Your task to perform on an android device: find which apps use the phone's location Image 0: 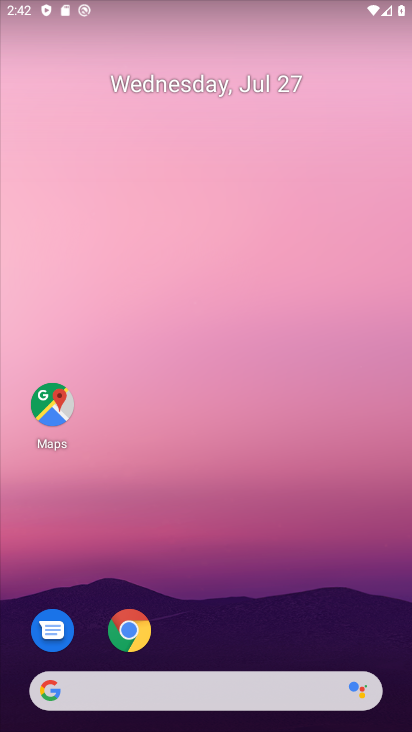
Step 0: drag from (353, 336) to (353, 40)
Your task to perform on an android device: find which apps use the phone's location Image 1: 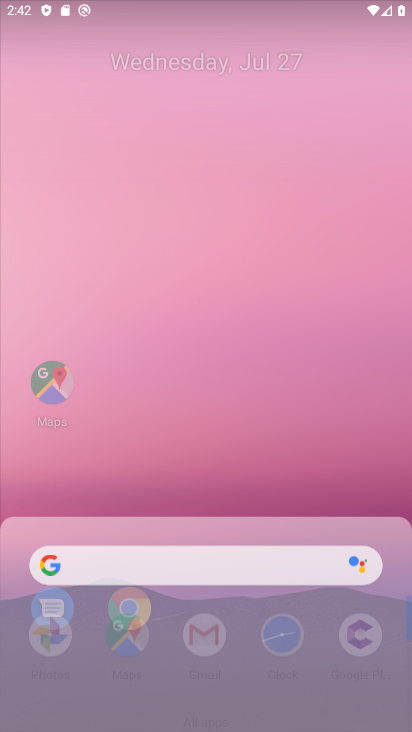
Step 1: drag from (310, 242) to (293, 111)
Your task to perform on an android device: find which apps use the phone's location Image 2: 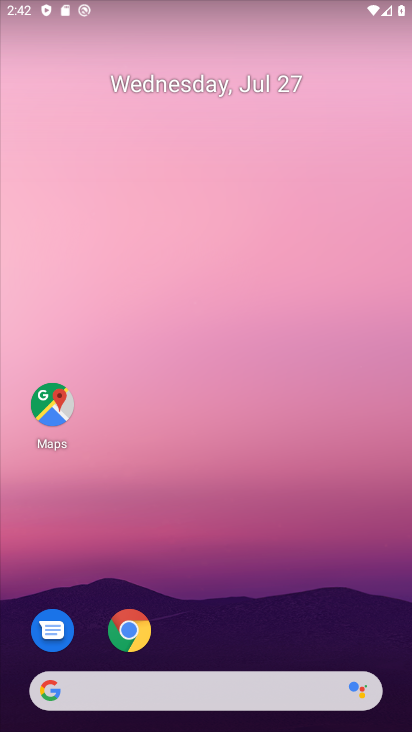
Step 2: drag from (159, 562) to (124, 153)
Your task to perform on an android device: find which apps use the phone's location Image 3: 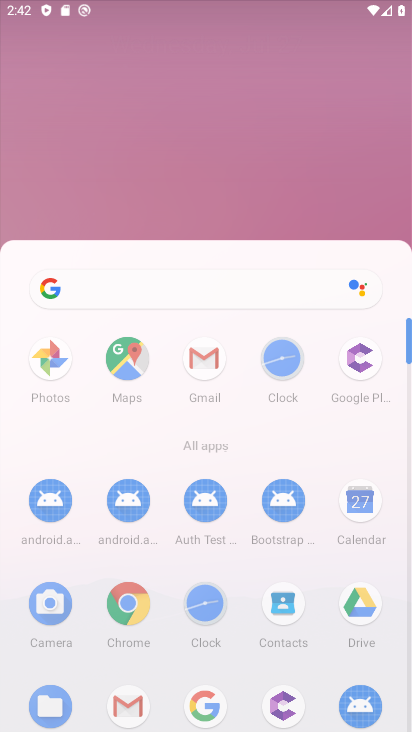
Step 3: drag from (193, 492) to (173, 139)
Your task to perform on an android device: find which apps use the phone's location Image 4: 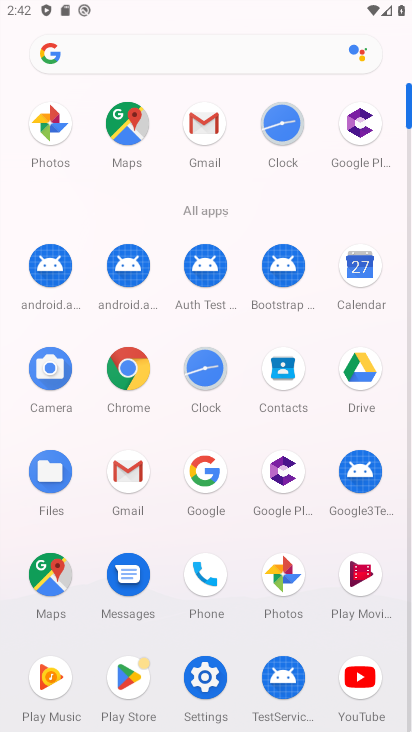
Step 4: drag from (153, 307) to (129, 137)
Your task to perform on an android device: find which apps use the phone's location Image 5: 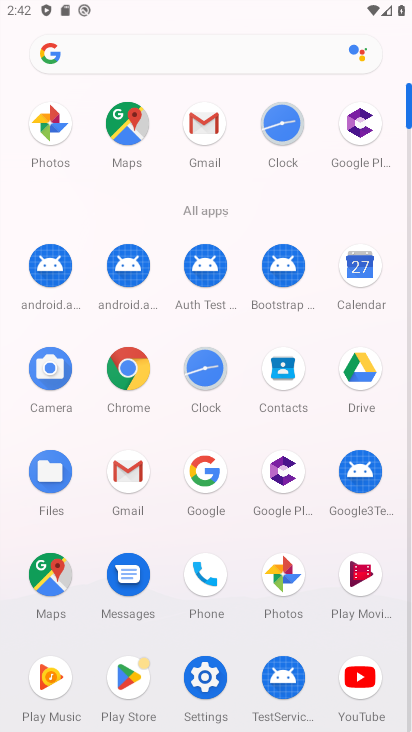
Step 5: click (207, 670)
Your task to perform on an android device: find which apps use the phone's location Image 6: 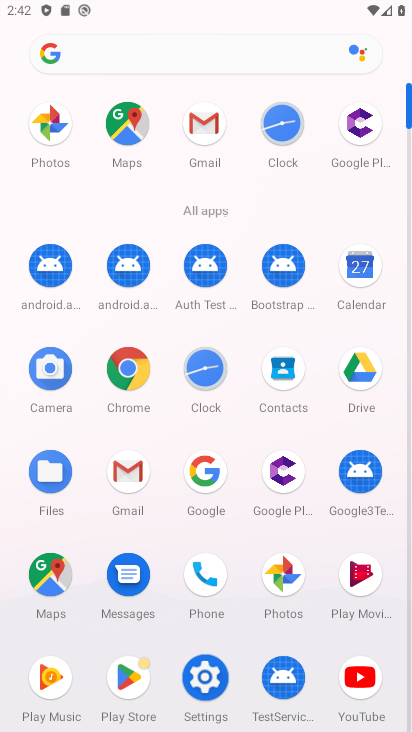
Step 6: click (208, 669)
Your task to perform on an android device: find which apps use the phone's location Image 7: 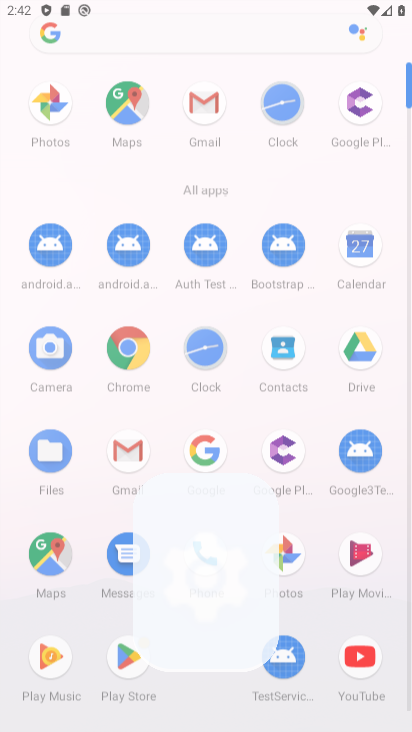
Step 7: click (214, 667)
Your task to perform on an android device: find which apps use the phone's location Image 8: 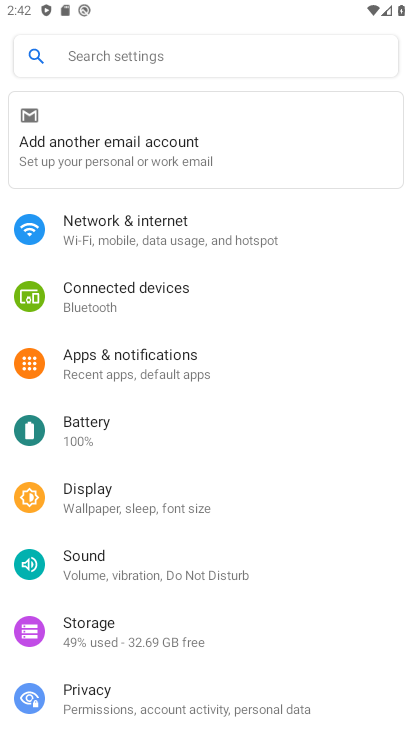
Step 8: drag from (134, 671) to (116, 404)
Your task to perform on an android device: find which apps use the phone's location Image 9: 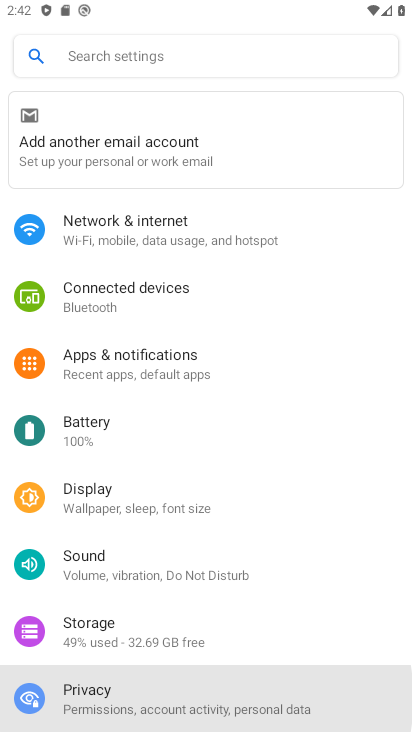
Step 9: click (122, 502)
Your task to perform on an android device: find which apps use the phone's location Image 10: 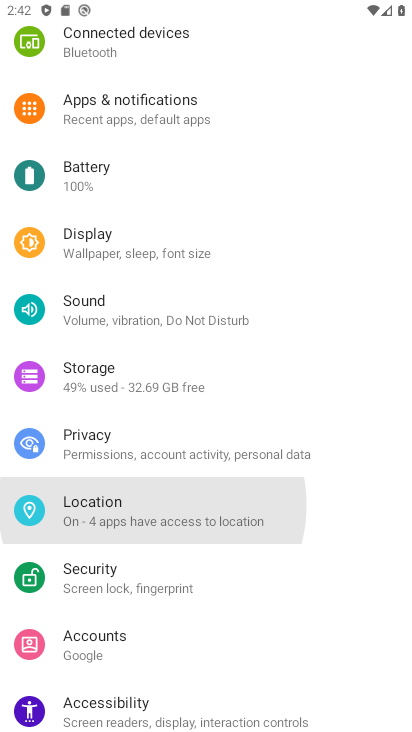
Step 10: drag from (146, 500) to (145, 441)
Your task to perform on an android device: find which apps use the phone's location Image 11: 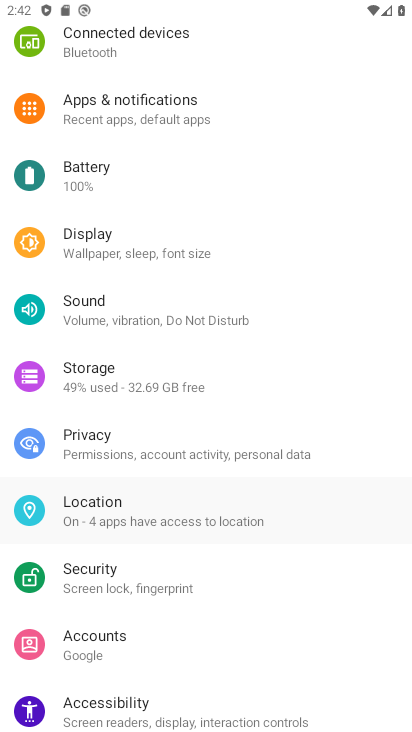
Step 11: drag from (162, 561) to (162, 414)
Your task to perform on an android device: find which apps use the phone's location Image 12: 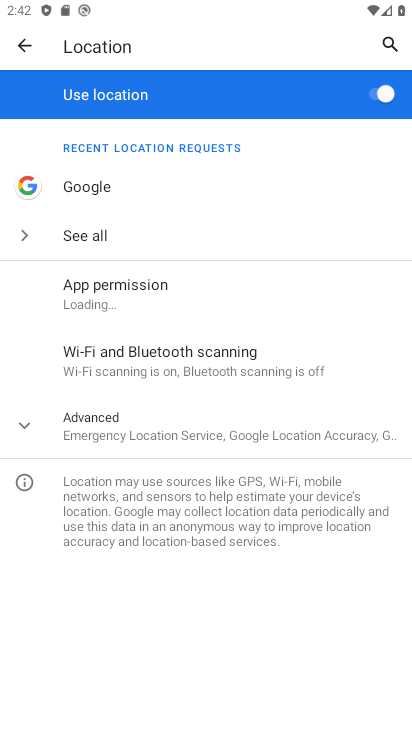
Step 12: click (101, 274)
Your task to perform on an android device: find which apps use the phone's location Image 13: 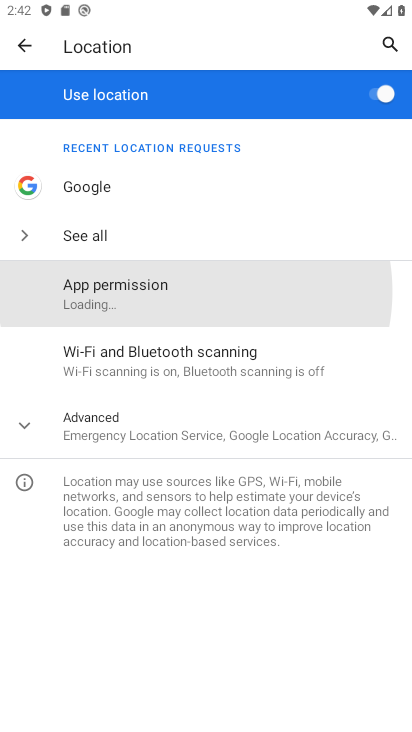
Step 13: click (102, 278)
Your task to perform on an android device: find which apps use the phone's location Image 14: 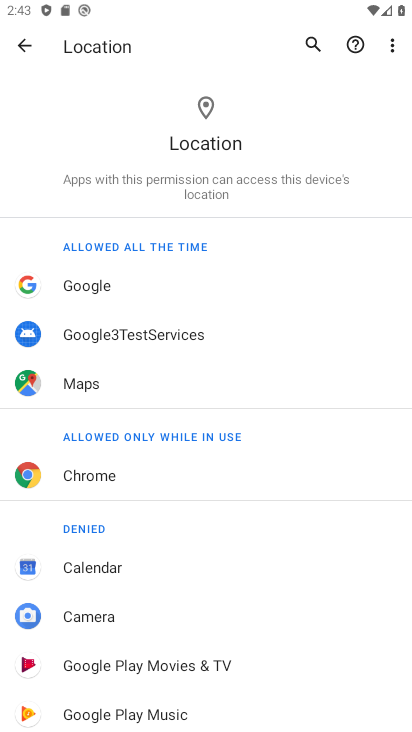
Step 14: task complete